Your task to perform on an android device: turn smart compose on in the gmail app Image 0: 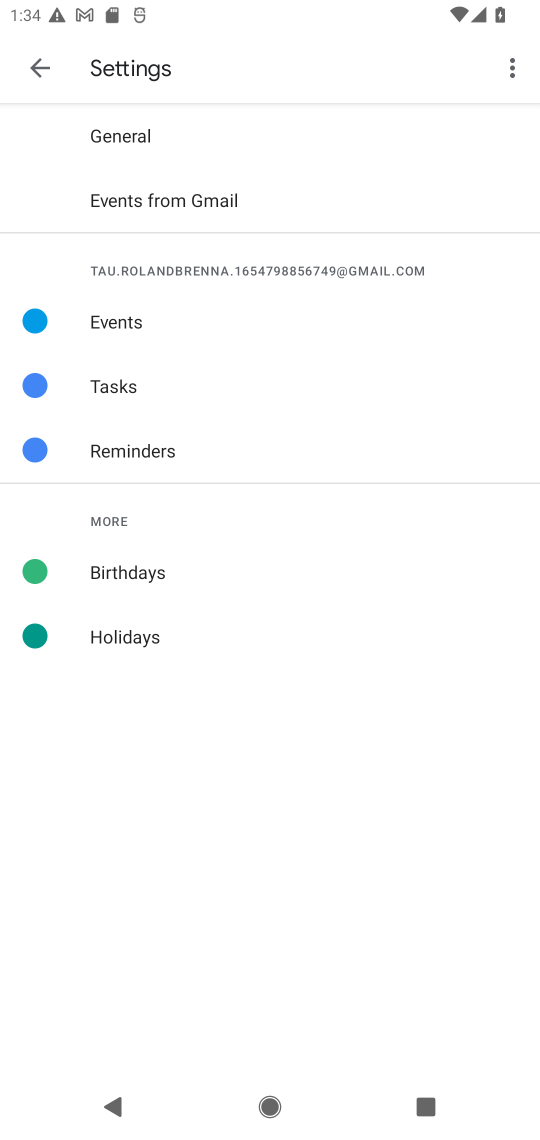
Step 0: press home button
Your task to perform on an android device: turn smart compose on in the gmail app Image 1: 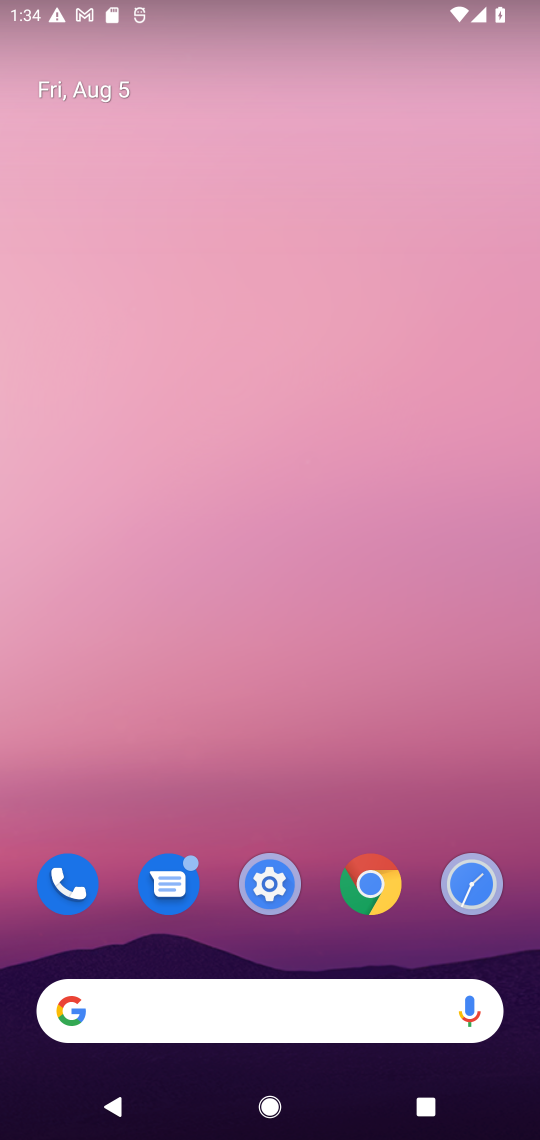
Step 1: drag from (313, 932) to (88, 41)
Your task to perform on an android device: turn smart compose on in the gmail app Image 2: 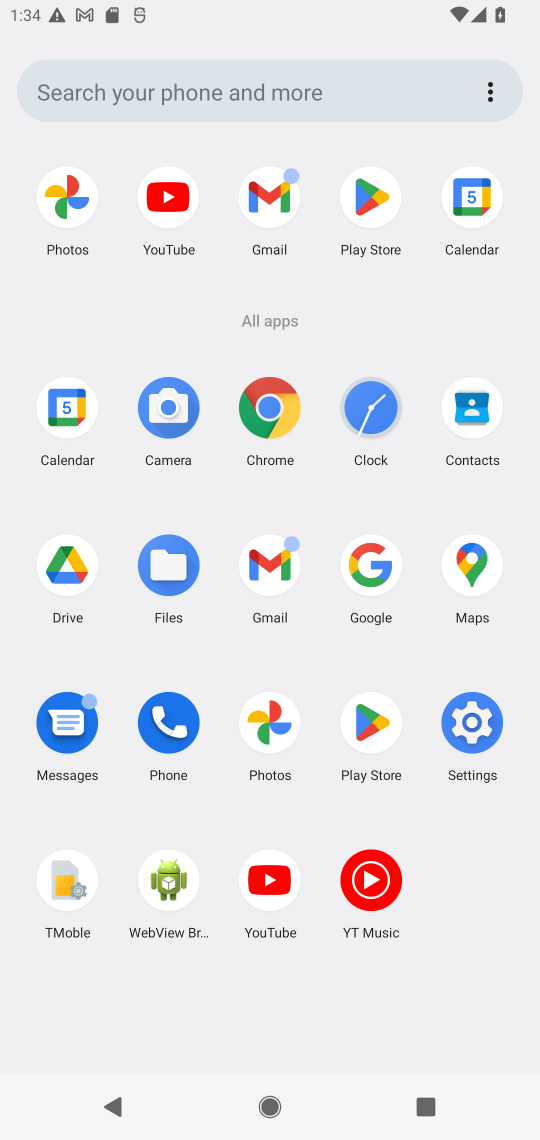
Step 2: click (275, 571)
Your task to perform on an android device: turn smart compose on in the gmail app Image 3: 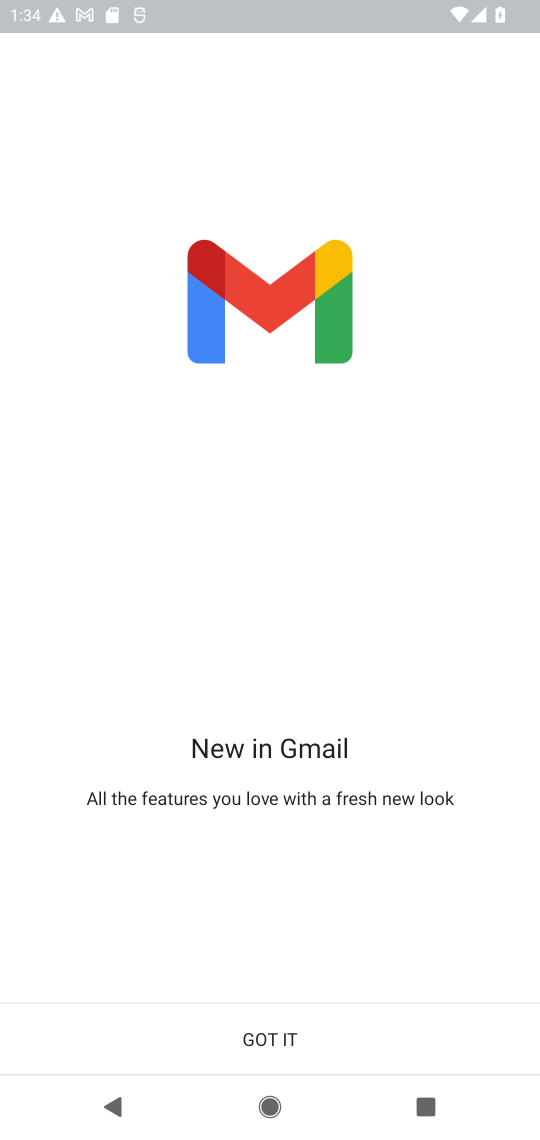
Step 3: click (252, 1051)
Your task to perform on an android device: turn smart compose on in the gmail app Image 4: 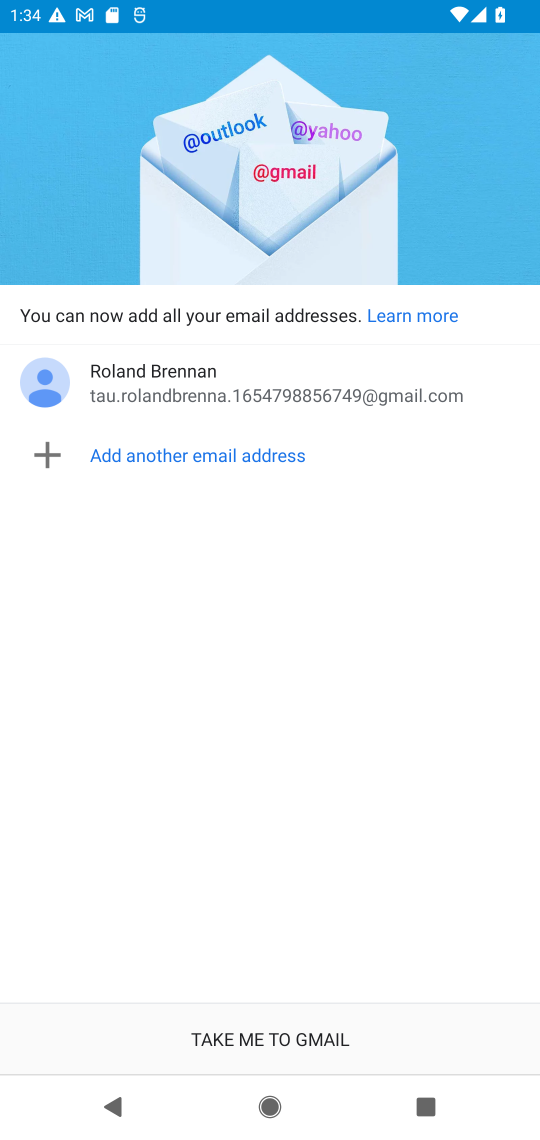
Step 4: click (252, 1050)
Your task to perform on an android device: turn smart compose on in the gmail app Image 5: 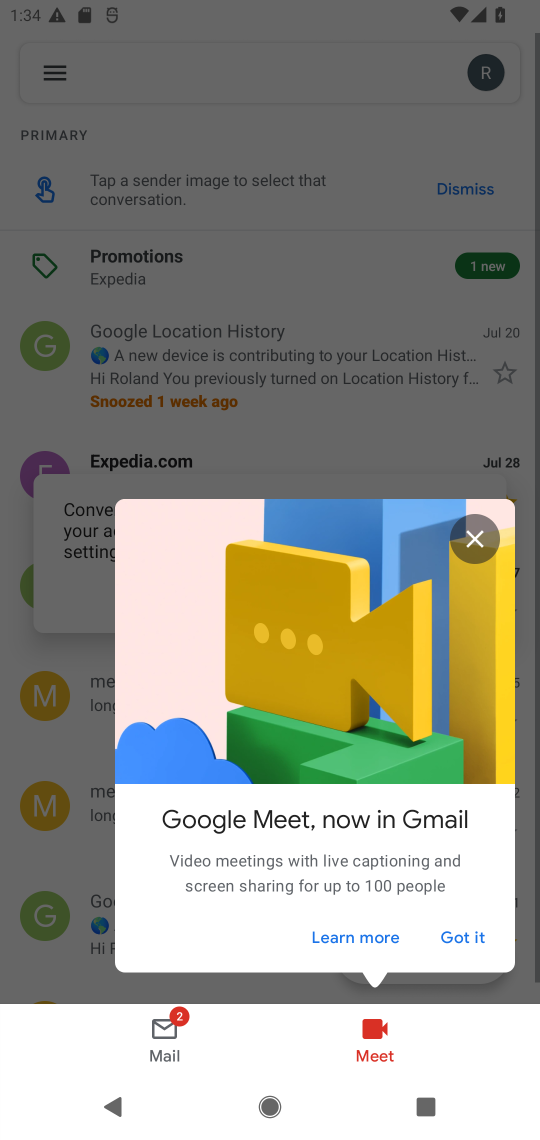
Step 5: click (459, 938)
Your task to perform on an android device: turn smart compose on in the gmail app Image 6: 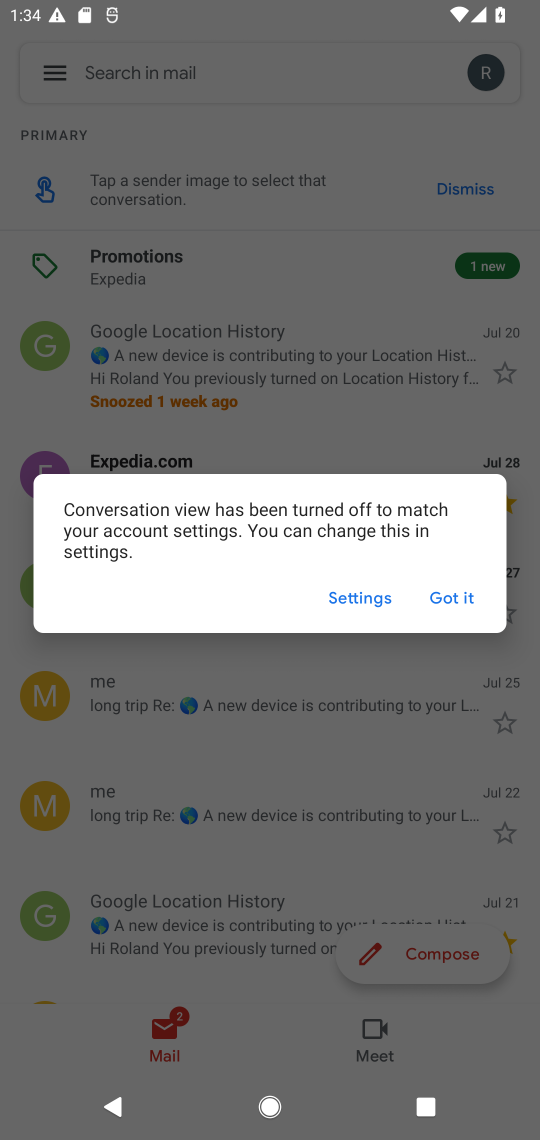
Step 6: click (453, 603)
Your task to perform on an android device: turn smart compose on in the gmail app Image 7: 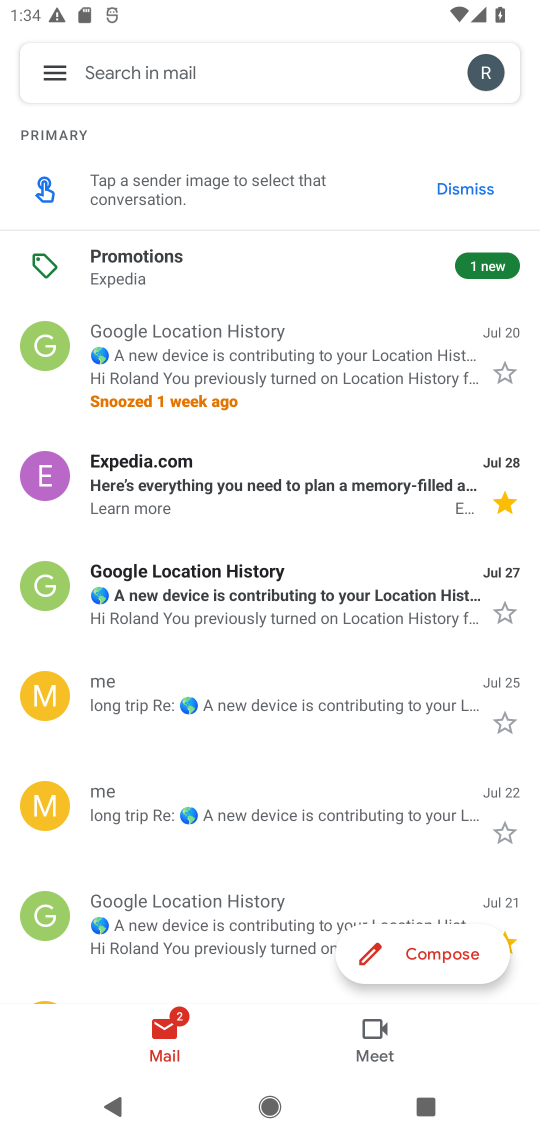
Step 7: click (37, 69)
Your task to perform on an android device: turn smart compose on in the gmail app Image 8: 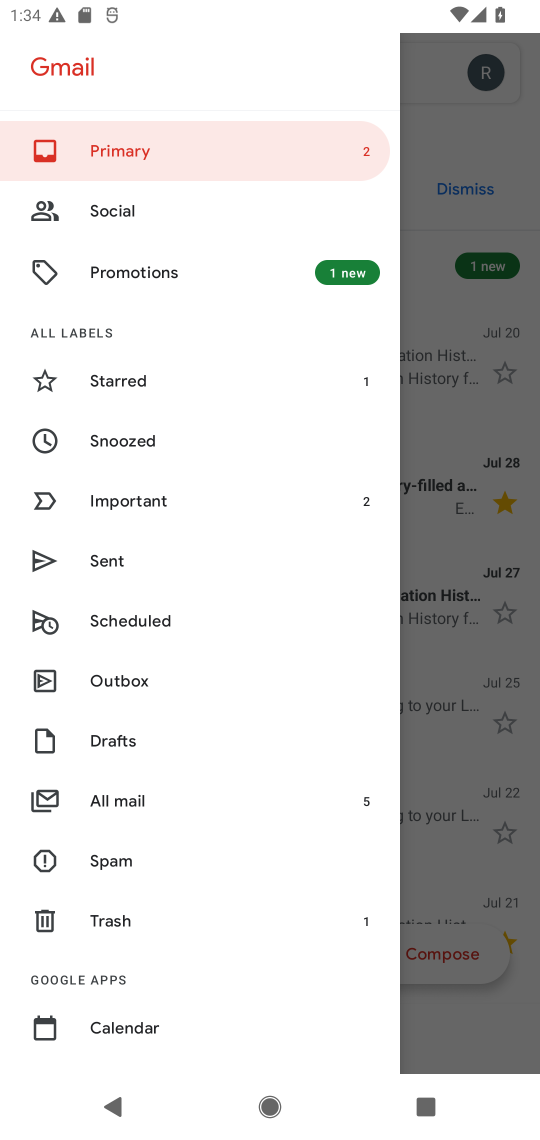
Step 8: drag from (121, 991) to (163, 134)
Your task to perform on an android device: turn smart compose on in the gmail app Image 9: 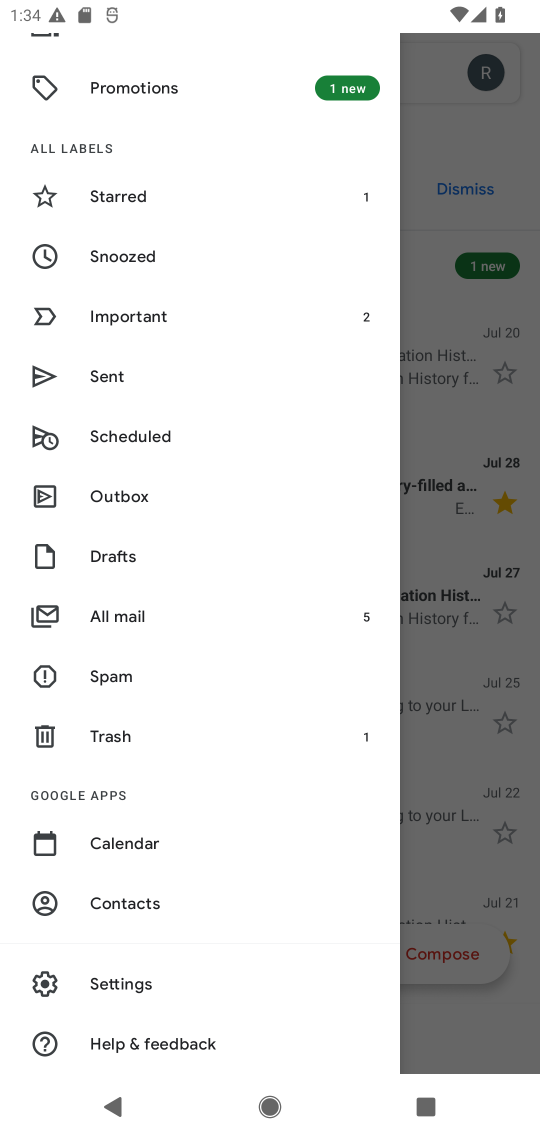
Step 9: click (110, 970)
Your task to perform on an android device: turn smart compose on in the gmail app Image 10: 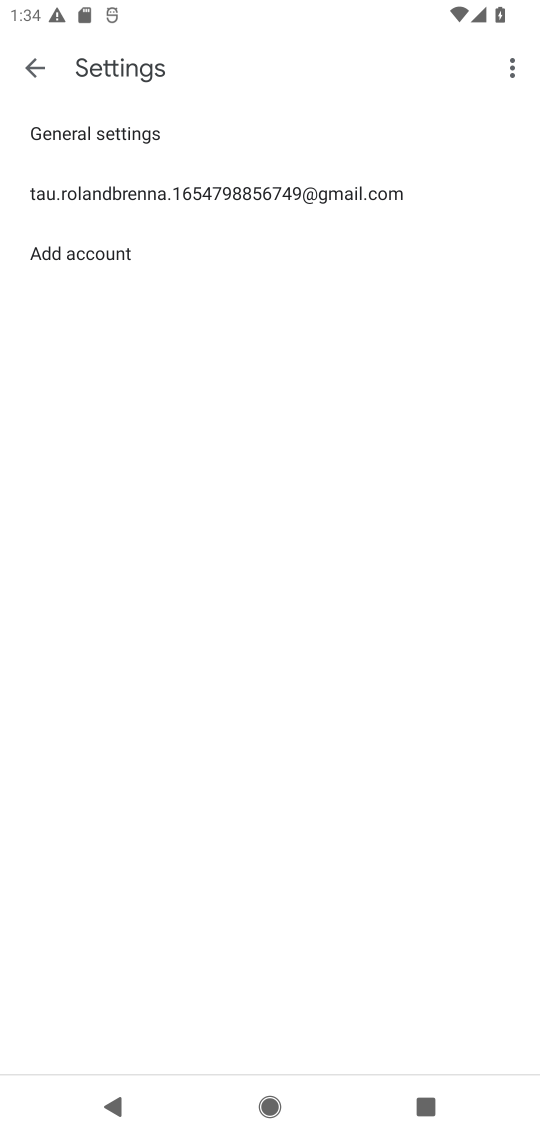
Step 10: click (141, 194)
Your task to perform on an android device: turn smart compose on in the gmail app Image 11: 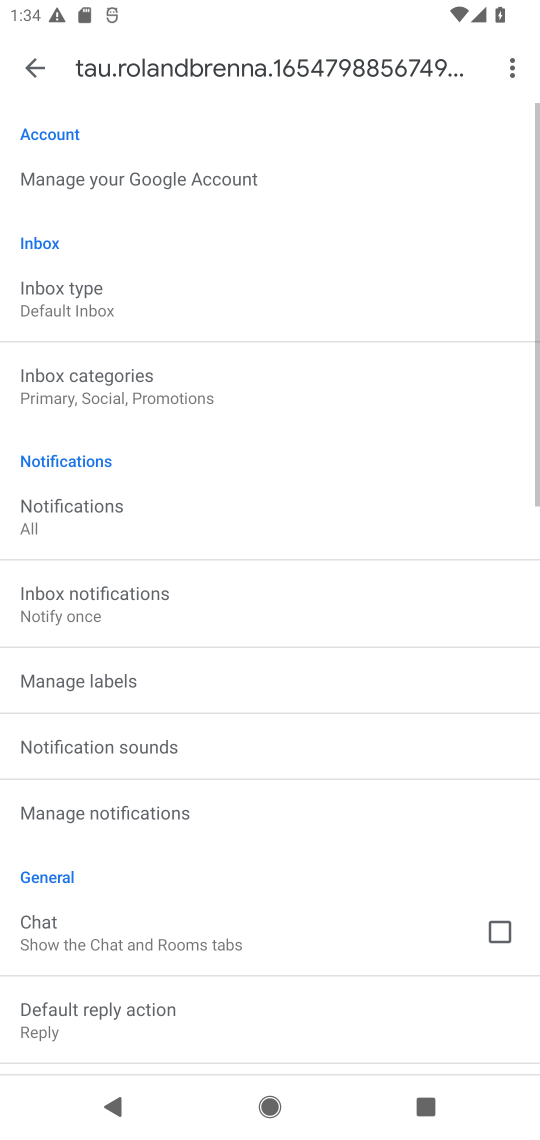
Step 11: task complete